Your task to perform on an android device: What is the news today? Image 0: 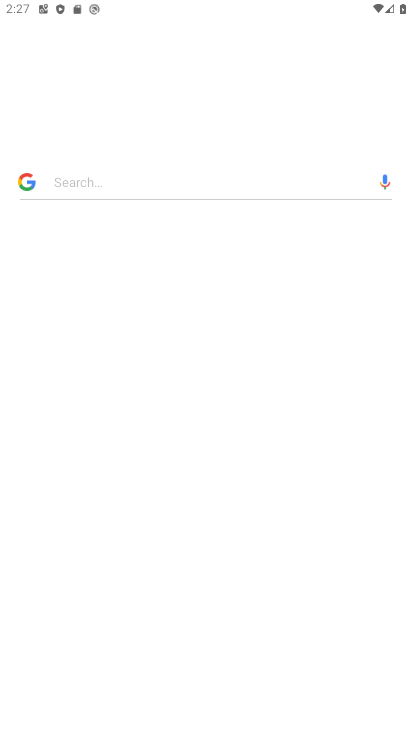
Step 0: press home button
Your task to perform on an android device: What is the news today? Image 1: 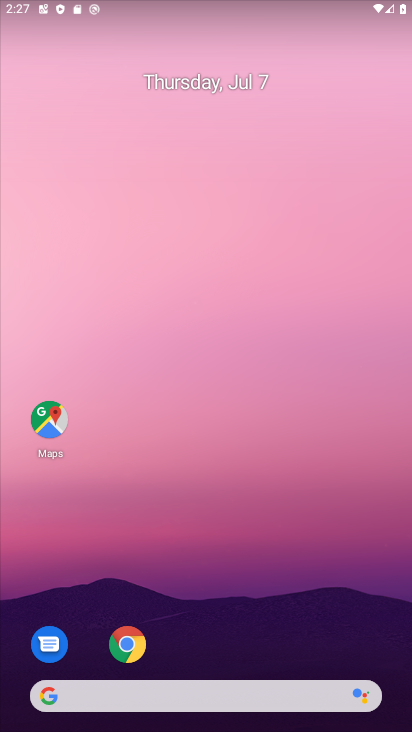
Step 1: click (41, 696)
Your task to perform on an android device: What is the news today? Image 2: 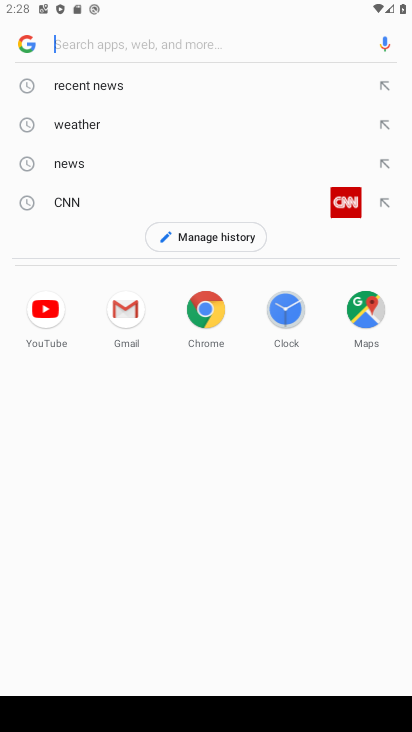
Step 2: type "news today"
Your task to perform on an android device: What is the news today? Image 3: 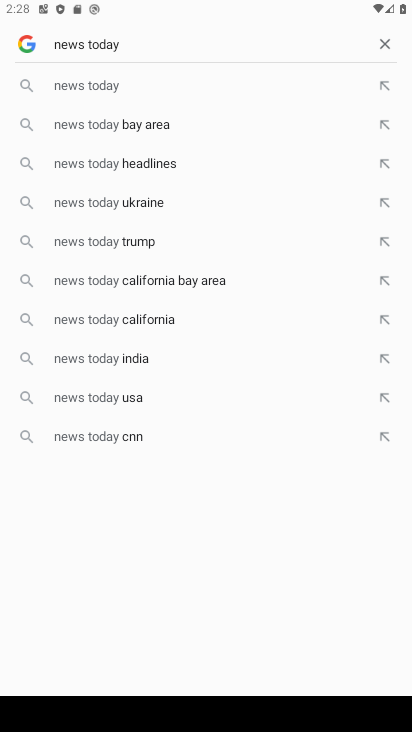
Step 3: click (194, 2)
Your task to perform on an android device: What is the news today? Image 4: 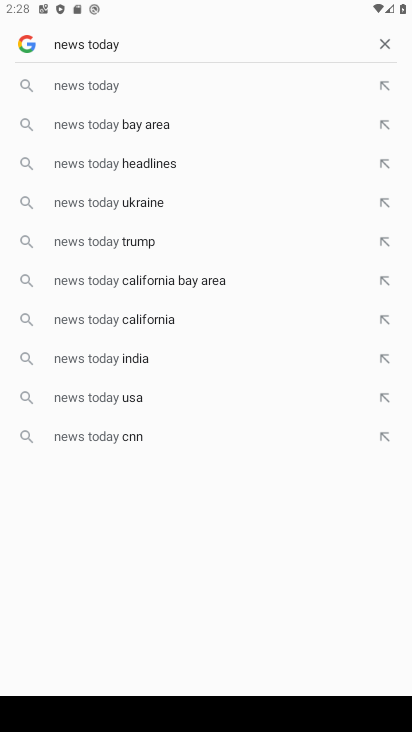
Step 4: click (87, 81)
Your task to perform on an android device: What is the news today? Image 5: 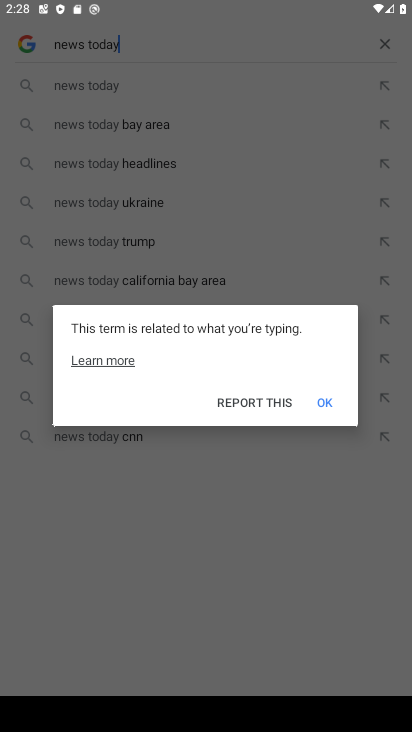
Step 5: click (328, 399)
Your task to perform on an android device: What is the news today? Image 6: 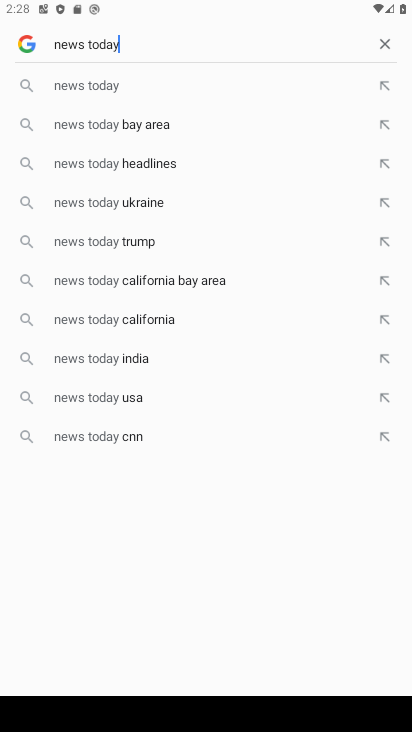
Step 6: click (78, 88)
Your task to perform on an android device: What is the news today? Image 7: 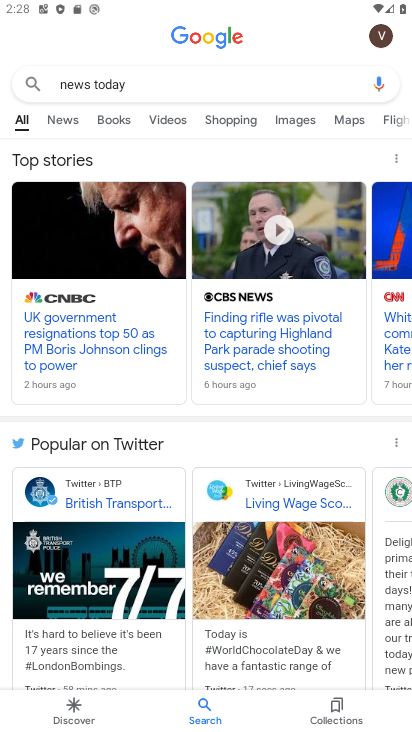
Step 7: task complete